Your task to perform on an android device: open app "DoorDash - Food Delivery" (install if not already installed) Image 0: 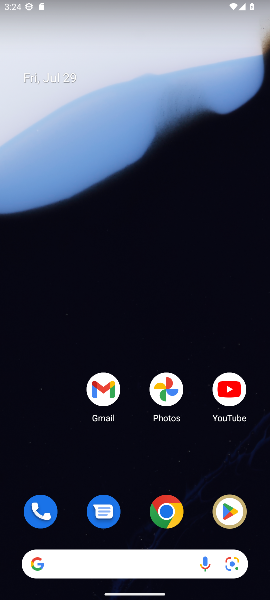
Step 0: click (244, 518)
Your task to perform on an android device: open app "DoorDash - Food Delivery" (install if not already installed) Image 1: 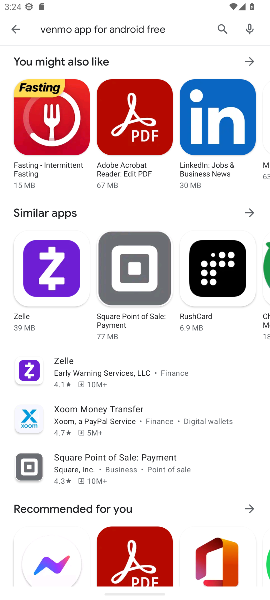
Step 1: click (226, 515)
Your task to perform on an android device: open app "DoorDash - Food Delivery" (install if not already installed) Image 2: 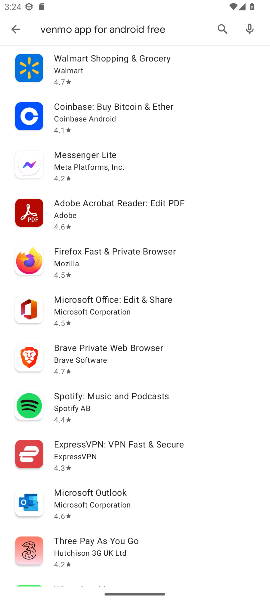
Step 2: click (10, 25)
Your task to perform on an android device: open app "DoorDash - Food Delivery" (install if not already installed) Image 3: 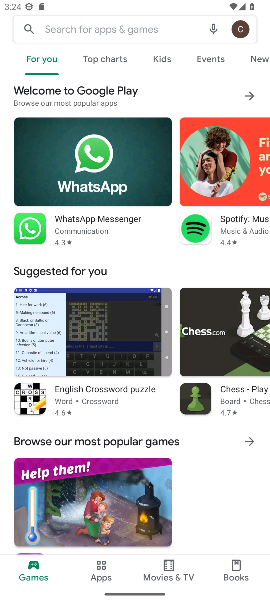
Step 3: click (57, 37)
Your task to perform on an android device: open app "DoorDash - Food Delivery" (install if not already installed) Image 4: 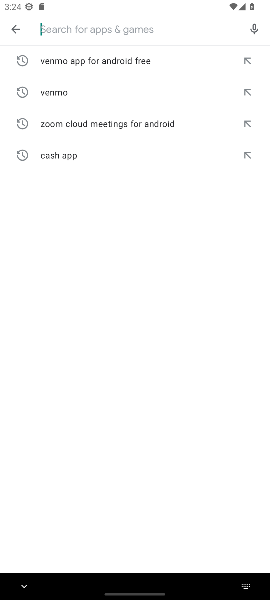
Step 4: click (57, 34)
Your task to perform on an android device: open app "DoorDash - Food Delivery" (install if not already installed) Image 5: 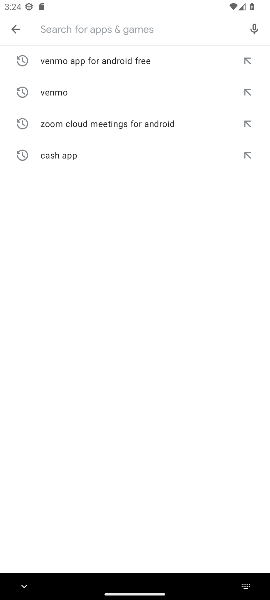
Step 5: type "DoorDash - Food Delivery"
Your task to perform on an android device: open app "DoorDash - Food Delivery" (install if not already installed) Image 6: 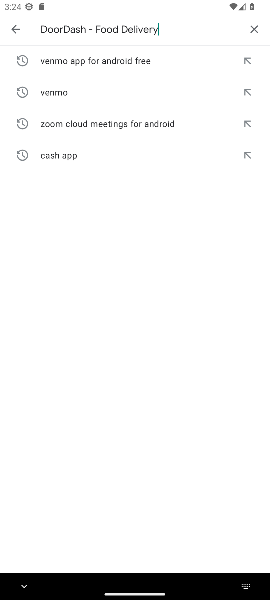
Step 6: type ""
Your task to perform on an android device: open app "DoorDash - Food Delivery" (install if not already installed) Image 7: 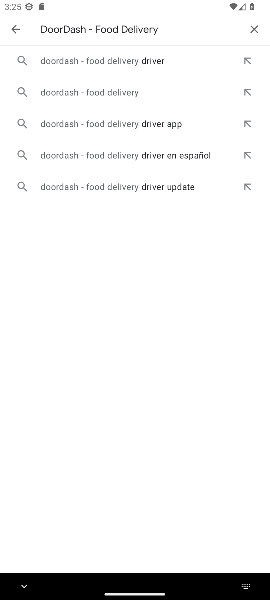
Step 7: click (93, 92)
Your task to perform on an android device: open app "DoorDash - Food Delivery" (install if not already installed) Image 8: 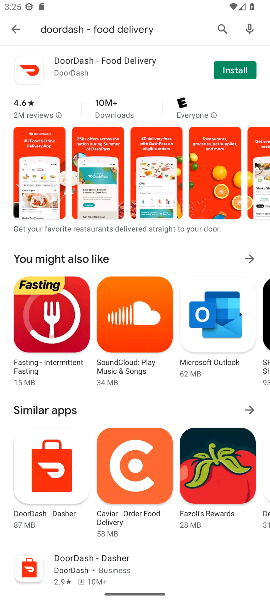
Step 8: click (232, 75)
Your task to perform on an android device: open app "DoorDash - Food Delivery" (install if not already installed) Image 9: 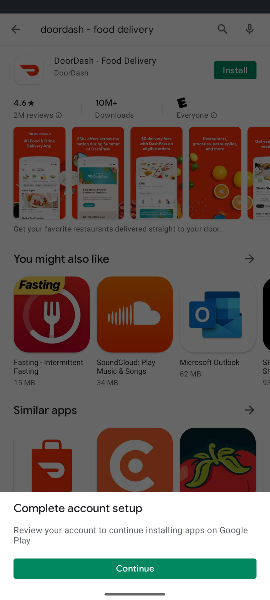
Step 9: click (140, 567)
Your task to perform on an android device: open app "DoorDash - Food Delivery" (install if not already installed) Image 10: 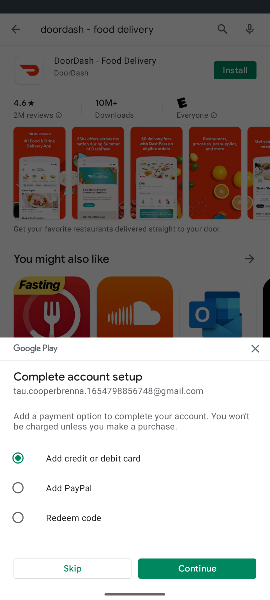
Step 10: click (39, 566)
Your task to perform on an android device: open app "DoorDash - Food Delivery" (install if not already installed) Image 11: 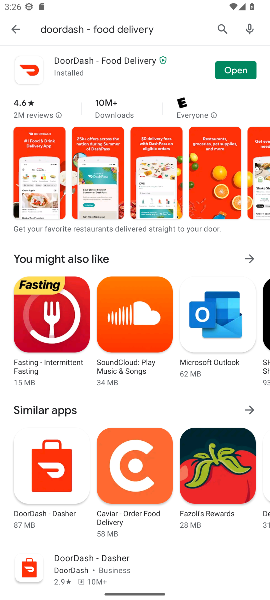
Step 11: task complete